Your task to perform on an android device: open wifi settings Image 0: 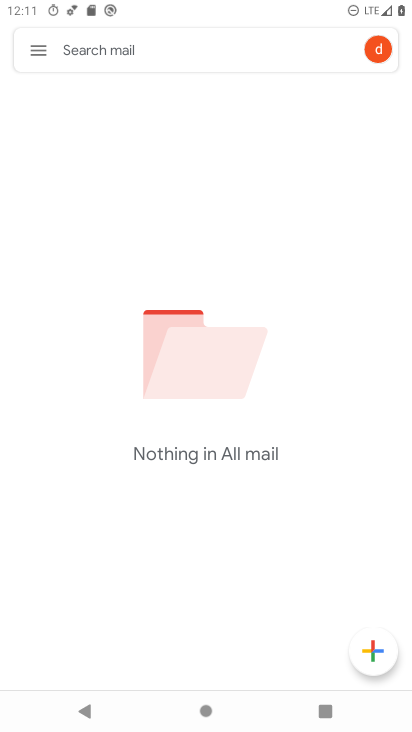
Step 0: press home button
Your task to perform on an android device: open wifi settings Image 1: 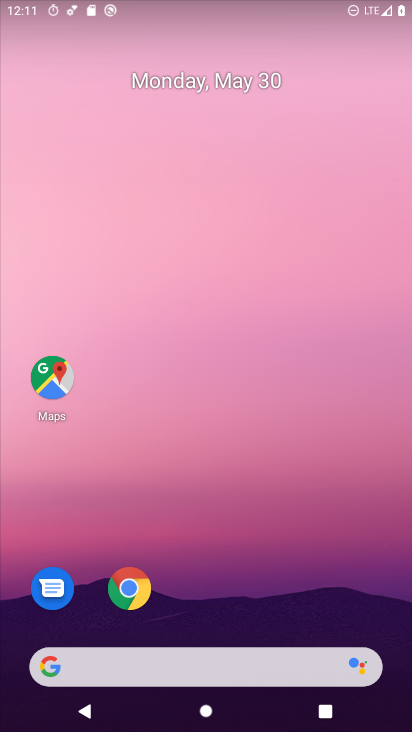
Step 1: drag from (294, 564) to (297, 77)
Your task to perform on an android device: open wifi settings Image 2: 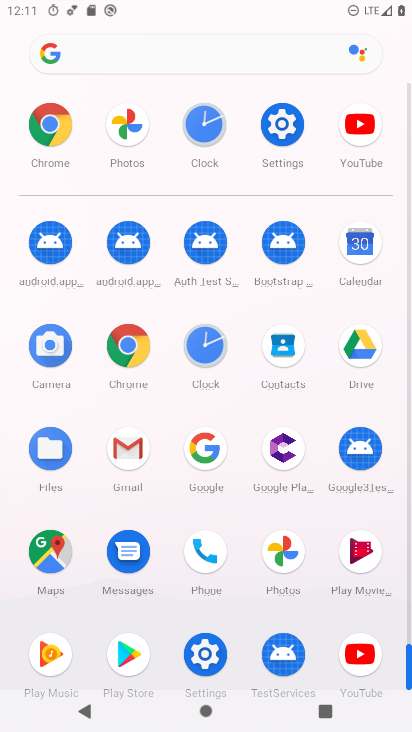
Step 2: click (207, 641)
Your task to perform on an android device: open wifi settings Image 3: 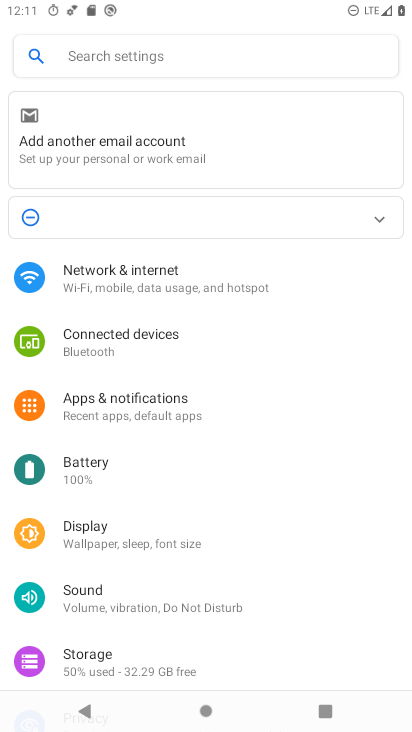
Step 3: click (199, 277)
Your task to perform on an android device: open wifi settings Image 4: 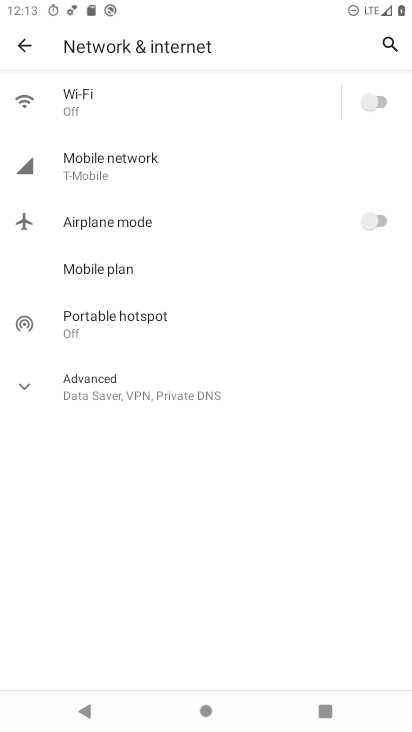
Step 4: click (102, 107)
Your task to perform on an android device: open wifi settings Image 5: 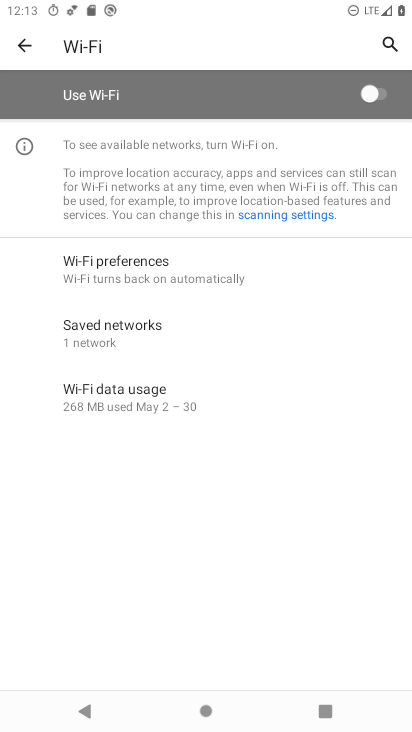
Step 5: task complete